Your task to perform on an android device: Open the calendar app, open the side menu, and click the "Day" option Image 0: 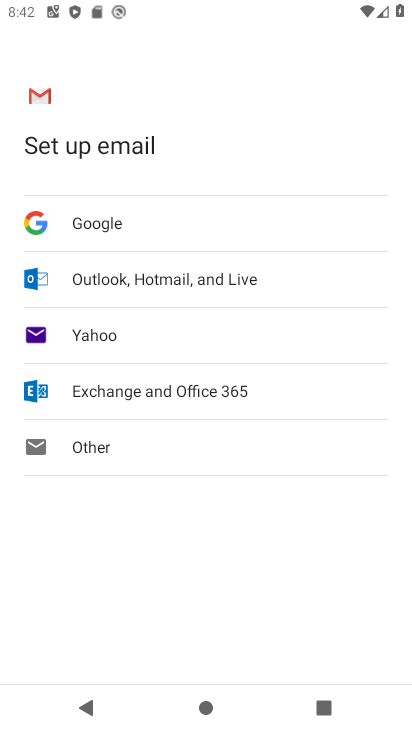
Step 0: press home button
Your task to perform on an android device: Open the calendar app, open the side menu, and click the "Day" option Image 1: 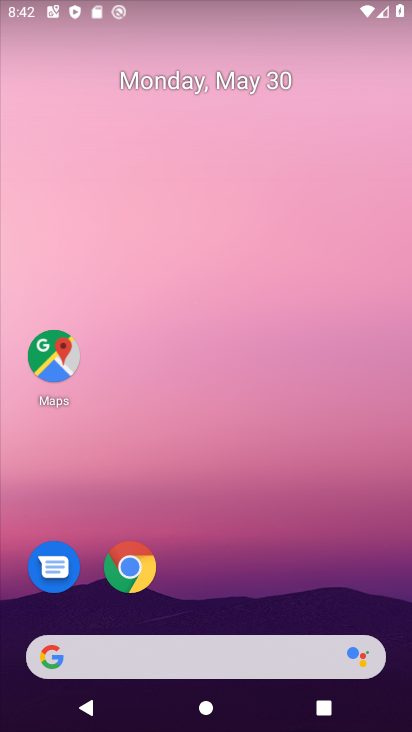
Step 1: click (177, 84)
Your task to perform on an android device: Open the calendar app, open the side menu, and click the "Day" option Image 2: 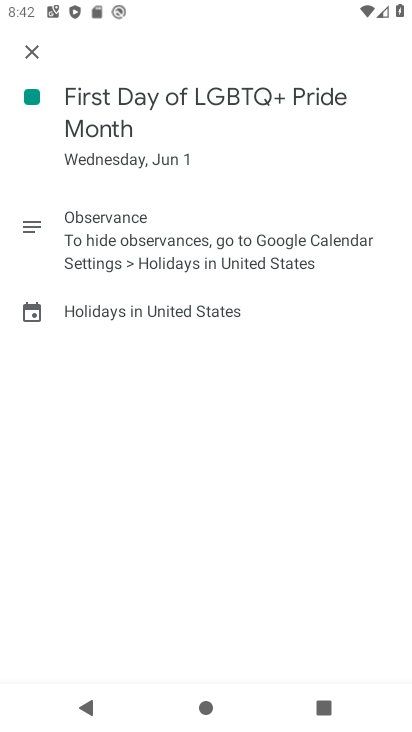
Step 2: click (42, 47)
Your task to perform on an android device: Open the calendar app, open the side menu, and click the "Day" option Image 3: 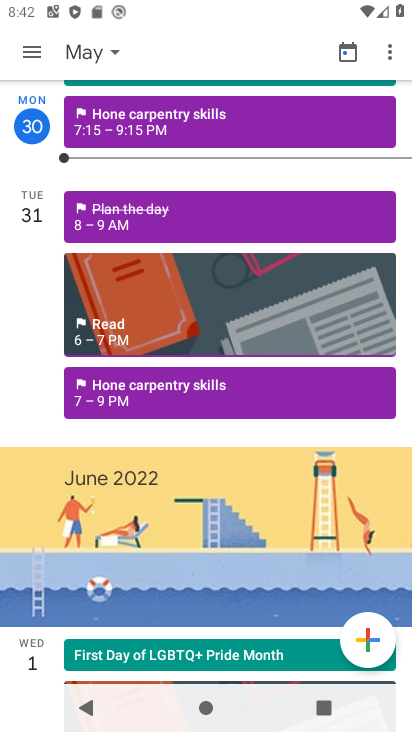
Step 3: click (42, 47)
Your task to perform on an android device: Open the calendar app, open the side menu, and click the "Day" option Image 4: 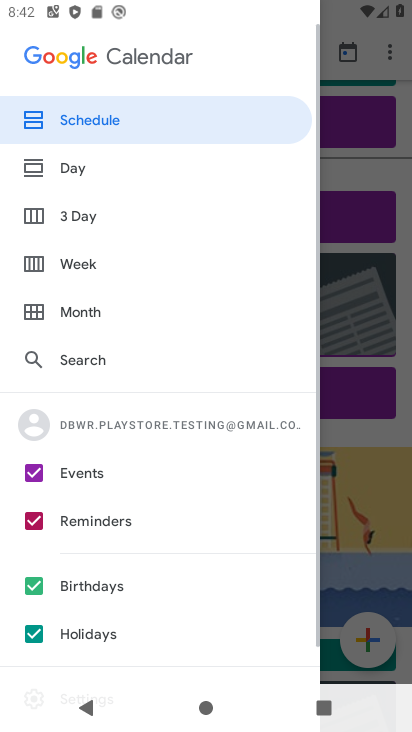
Step 4: click (90, 180)
Your task to perform on an android device: Open the calendar app, open the side menu, and click the "Day" option Image 5: 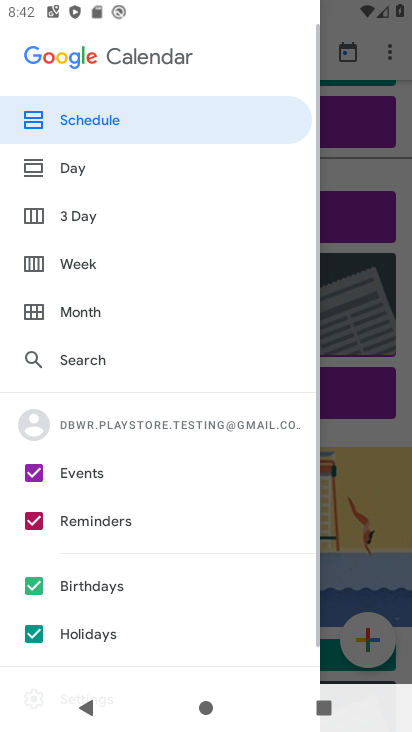
Step 5: click (90, 180)
Your task to perform on an android device: Open the calendar app, open the side menu, and click the "Day" option Image 6: 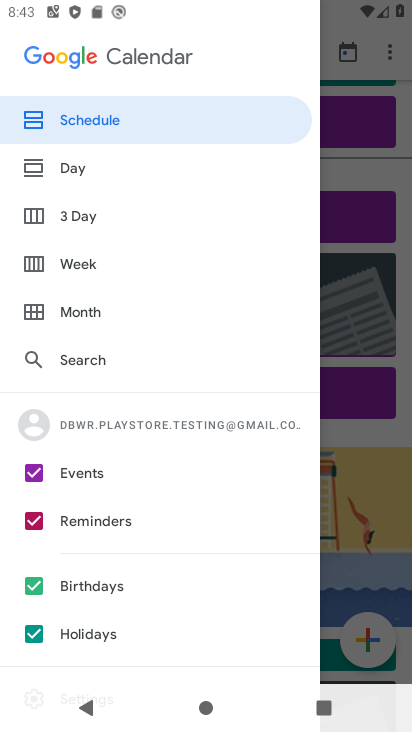
Step 6: click (90, 180)
Your task to perform on an android device: Open the calendar app, open the side menu, and click the "Day" option Image 7: 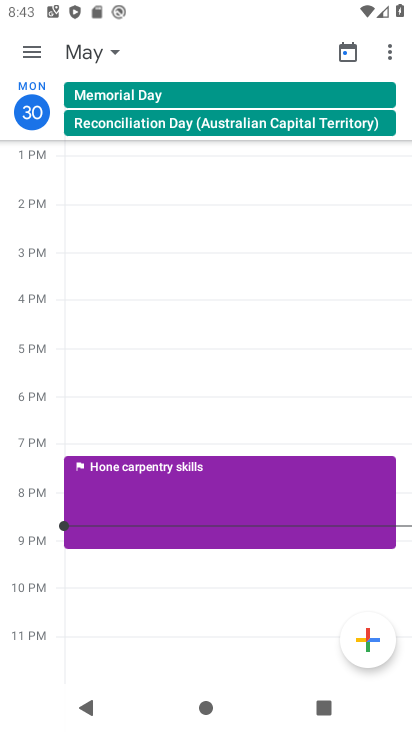
Step 7: task complete